Your task to perform on an android device: check android version Image 0: 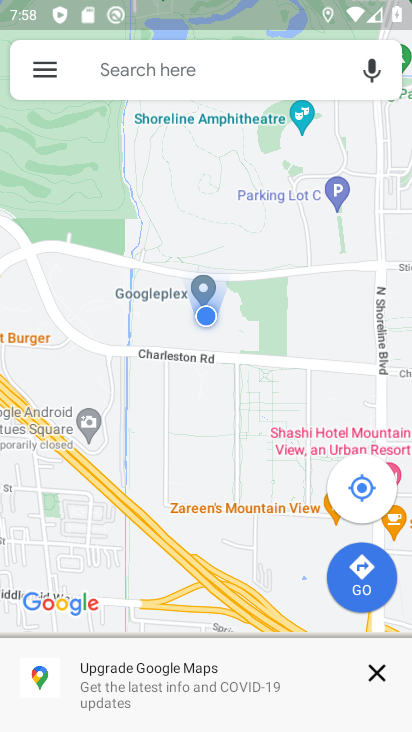
Step 0: press home button
Your task to perform on an android device: check android version Image 1: 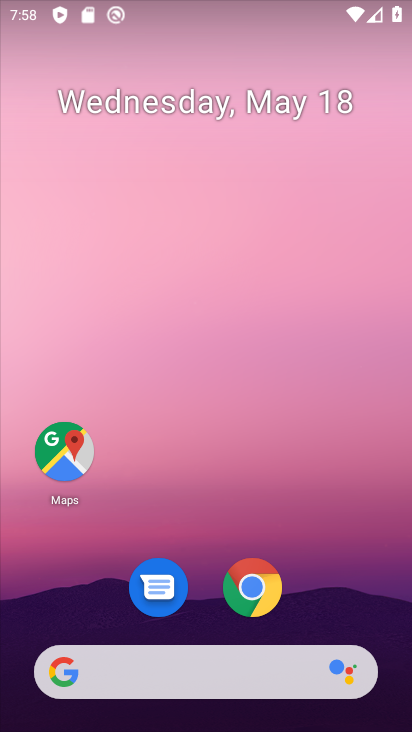
Step 1: drag from (211, 520) to (210, 211)
Your task to perform on an android device: check android version Image 2: 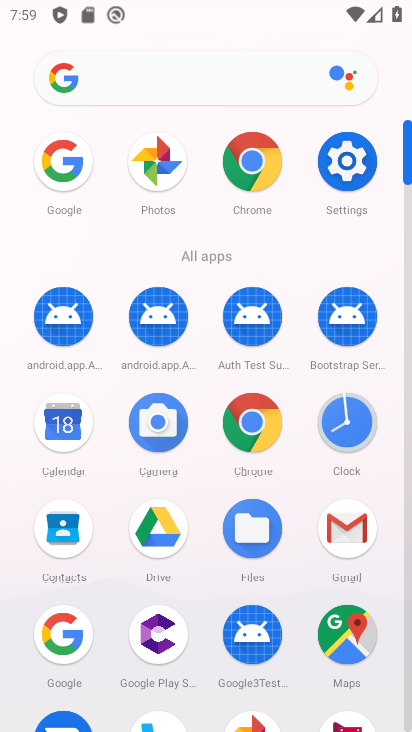
Step 2: click (358, 196)
Your task to perform on an android device: check android version Image 3: 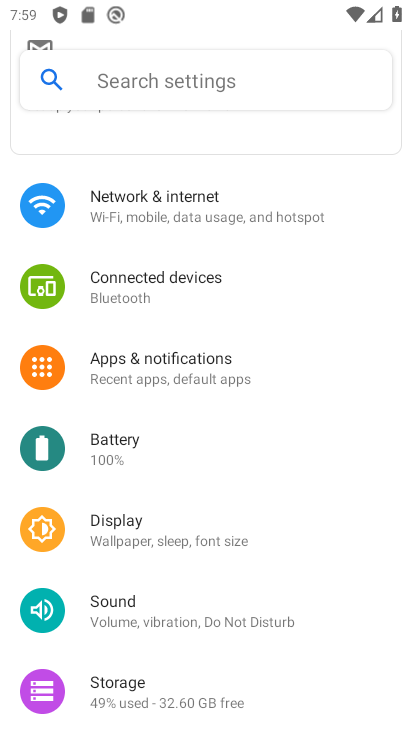
Step 3: drag from (201, 594) to (262, 183)
Your task to perform on an android device: check android version Image 4: 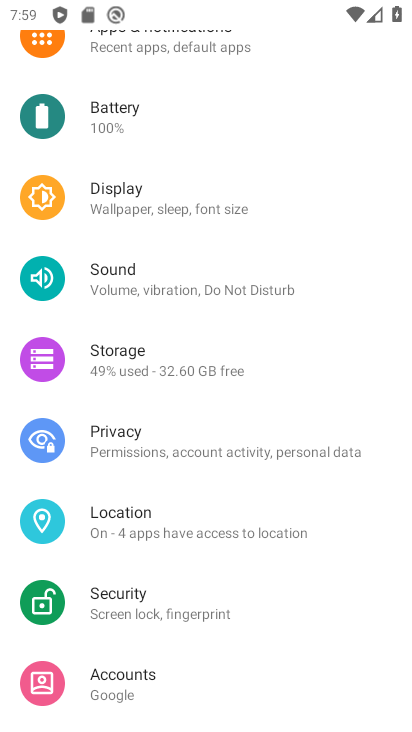
Step 4: drag from (208, 466) to (252, 164)
Your task to perform on an android device: check android version Image 5: 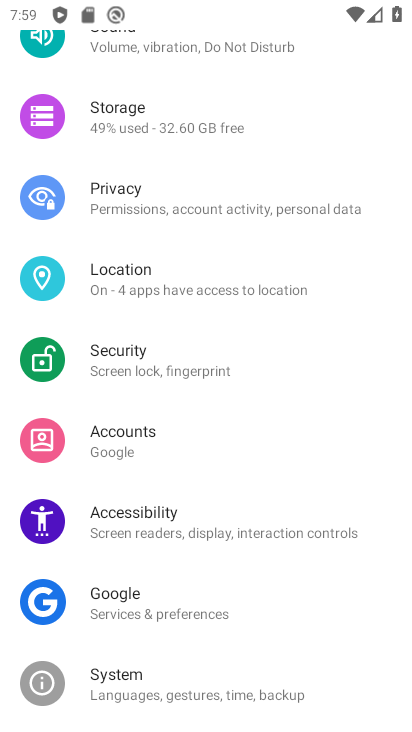
Step 5: drag from (184, 511) to (247, 137)
Your task to perform on an android device: check android version Image 6: 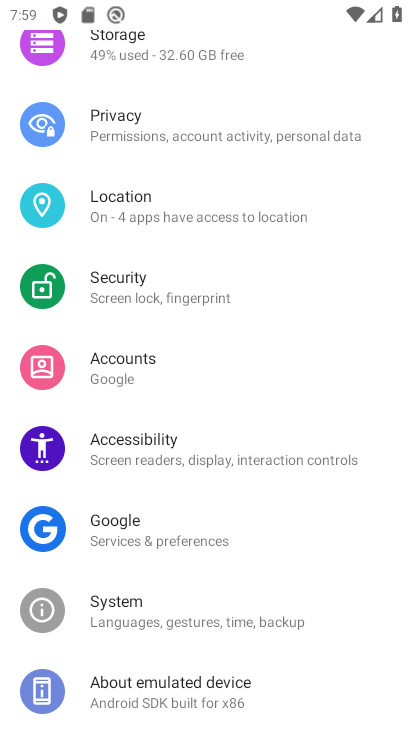
Step 6: click (215, 689)
Your task to perform on an android device: check android version Image 7: 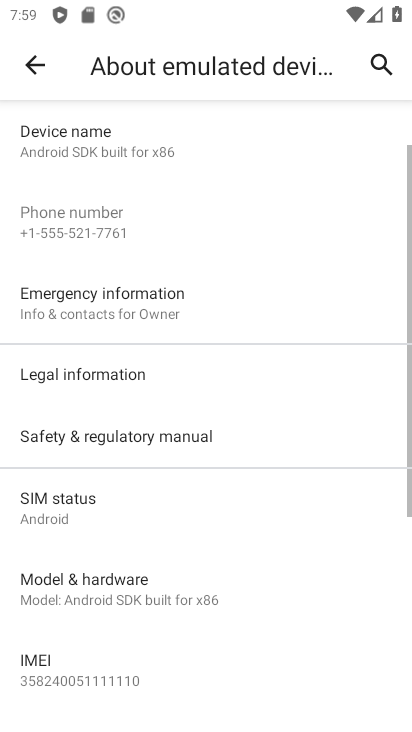
Step 7: drag from (238, 527) to (271, 250)
Your task to perform on an android device: check android version Image 8: 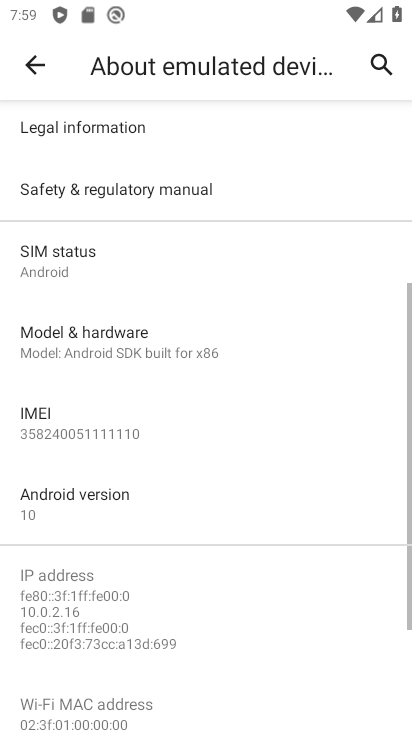
Step 8: drag from (145, 578) to (158, 460)
Your task to perform on an android device: check android version Image 9: 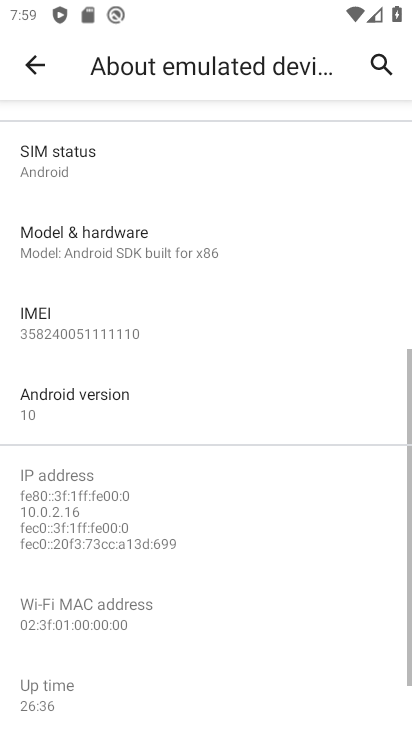
Step 9: click (127, 392)
Your task to perform on an android device: check android version Image 10: 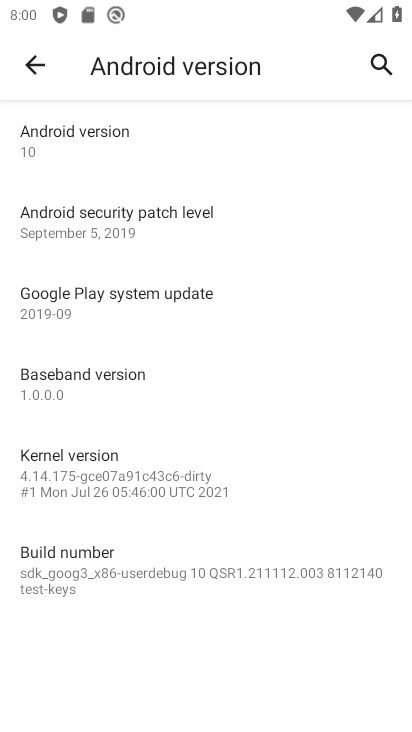
Step 10: click (120, 159)
Your task to perform on an android device: check android version Image 11: 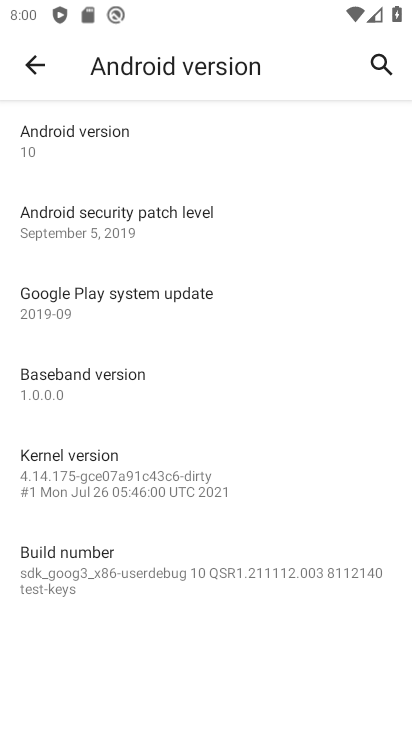
Step 11: task complete